Your task to perform on an android device: install app "Google Pay: Save, Pay, Manage" Image 0: 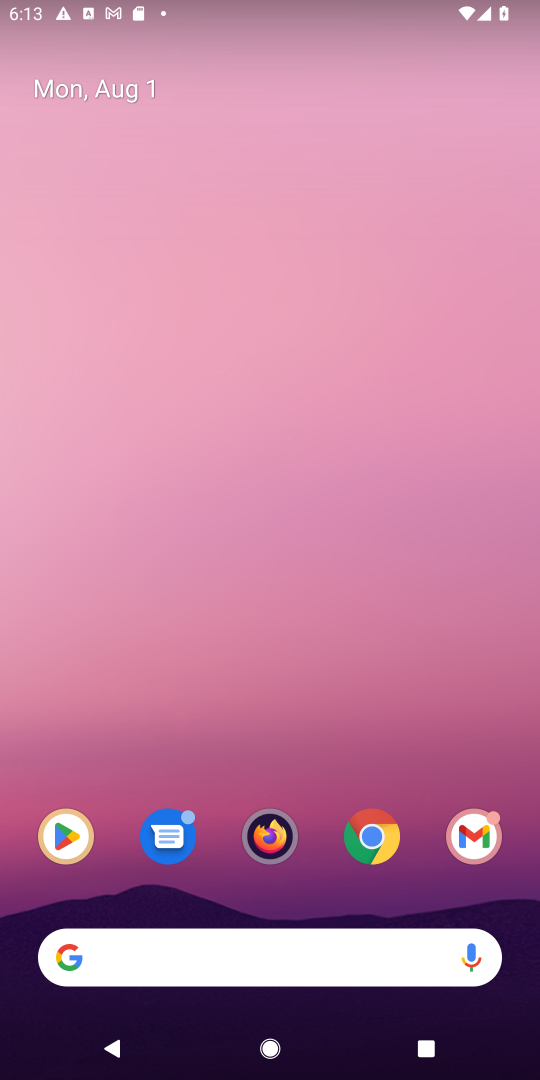
Step 0: click (72, 839)
Your task to perform on an android device: install app "Google Pay: Save, Pay, Manage" Image 1: 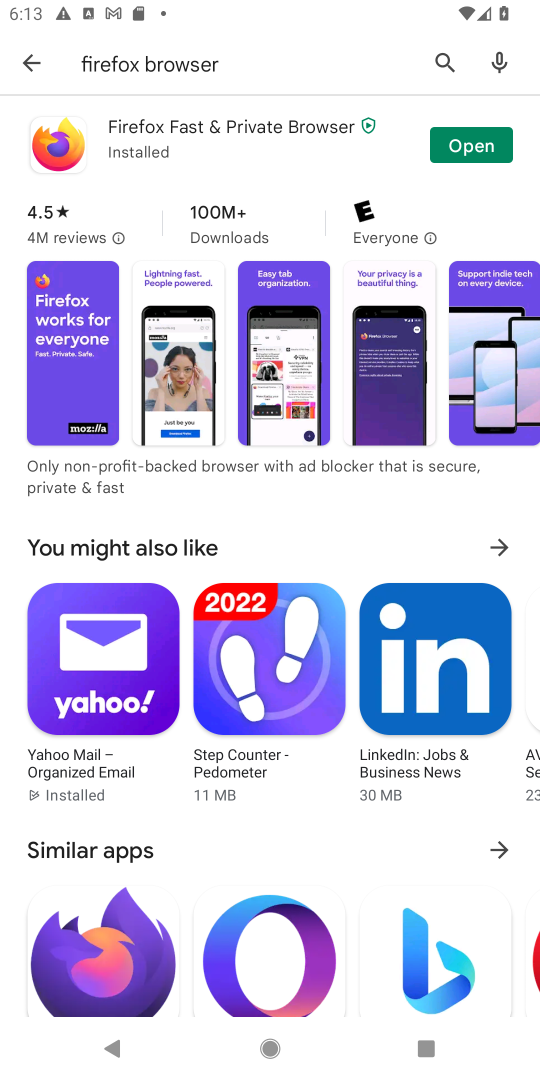
Step 1: click (440, 56)
Your task to perform on an android device: install app "Google Pay: Save, Pay, Manage" Image 2: 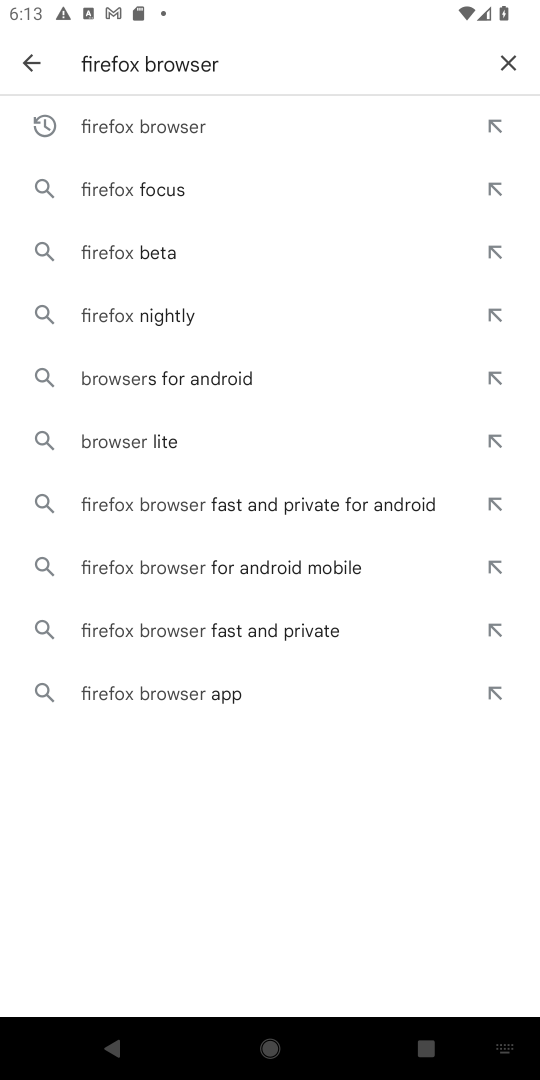
Step 2: click (506, 58)
Your task to perform on an android device: install app "Google Pay: Save, Pay, Manage" Image 3: 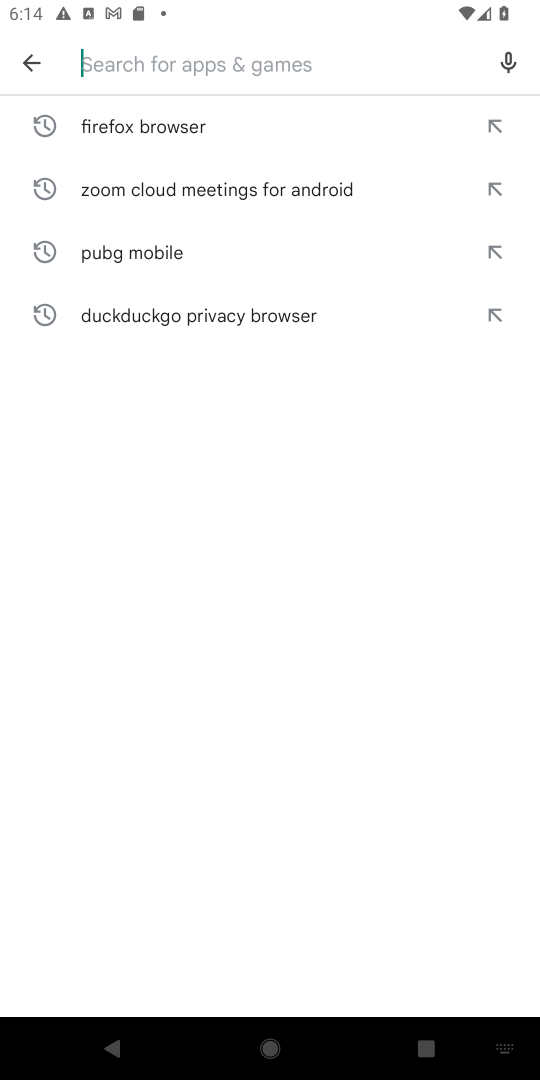
Step 3: type "Google Pay: Save, Pay, Manage"
Your task to perform on an android device: install app "Google Pay: Save, Pay, Manage" Image 4: 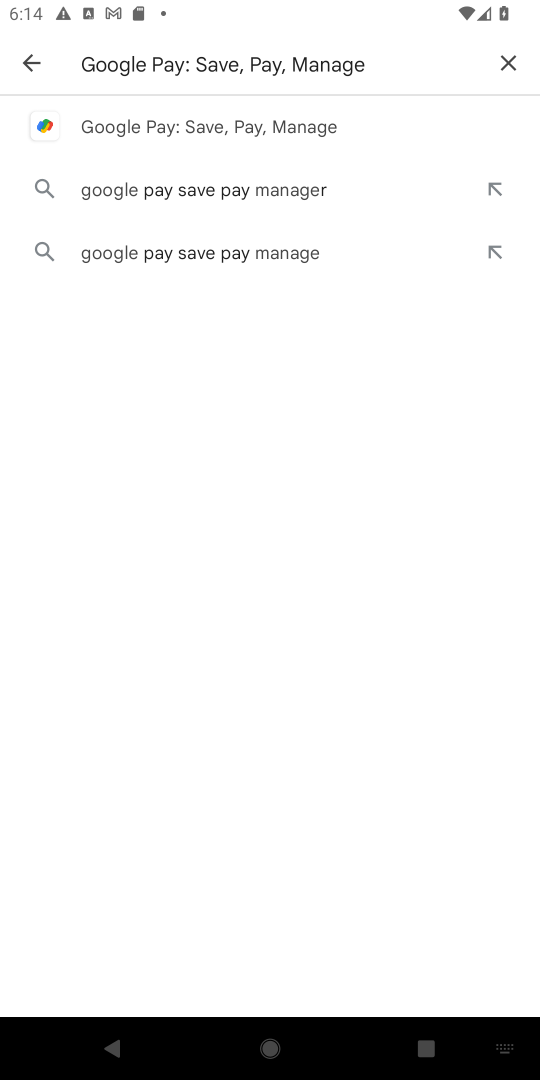
Step 4: click (196, 122)
Your task to perform on an android device: install app "Google Pay: Save, Pay, Manage" Image 5: 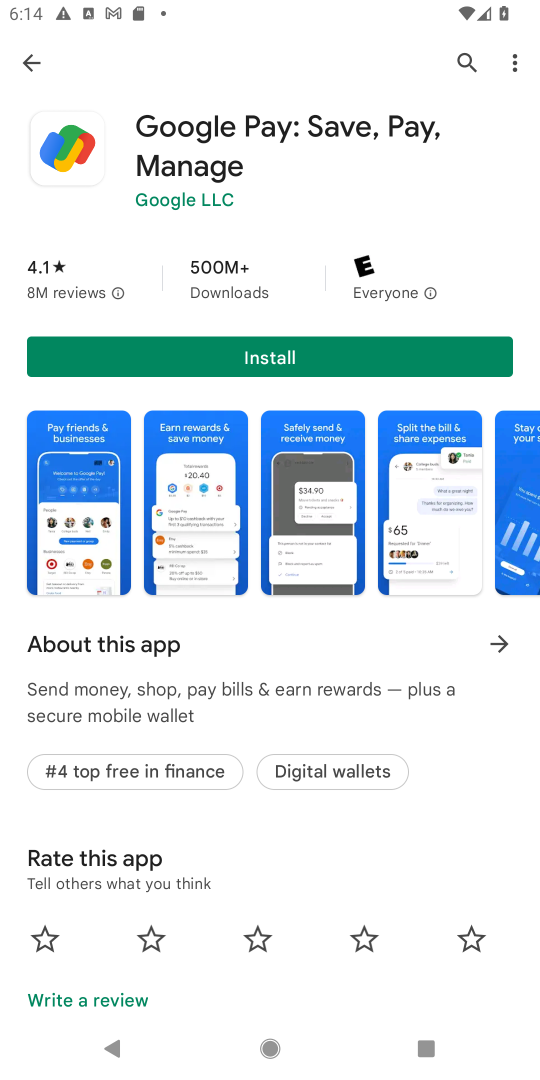
Step 5: click (270, 351)
Your task to perform on an android device: install app "Google Pay: Save, Pay, Manage" Image 6: 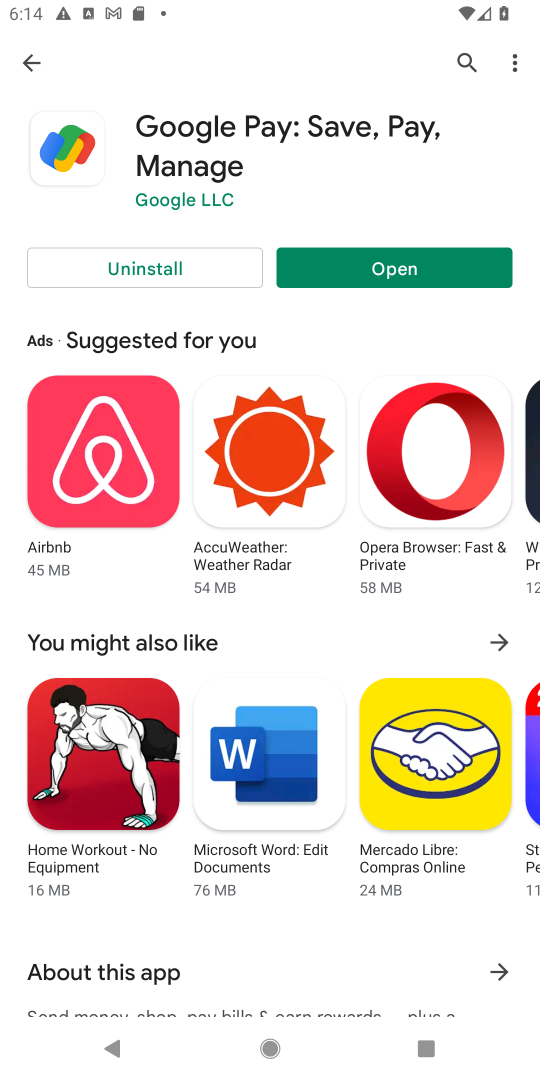
Step 6: task complete